Your task to perform on an android device: Open the map Image 0: 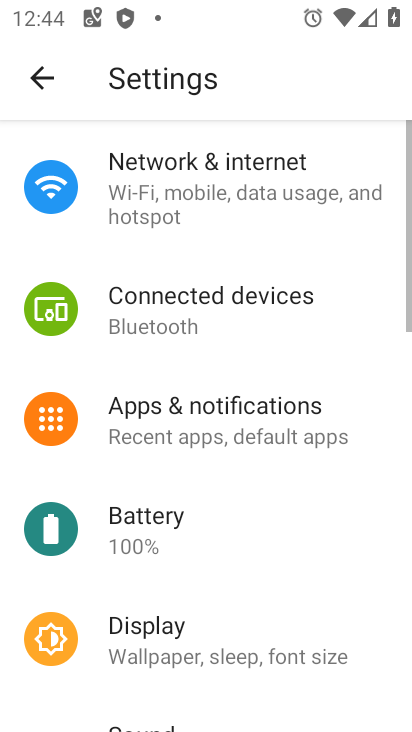
Step 0: press home button
Your task to perform on an android device: Open the map Image 1: 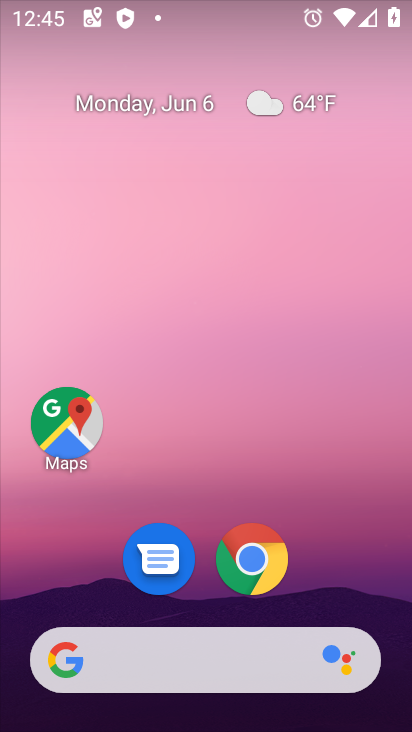
Step 1: drag from (210, 683) to (206, 150)
Your task to perform on an android device: Open the map Image 2: 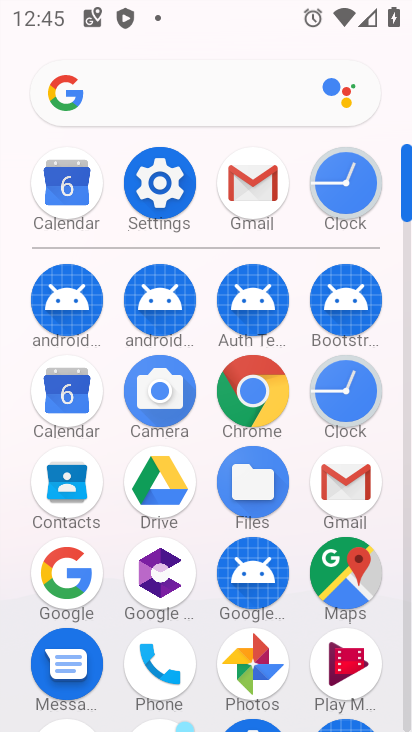
Step 2: click (355, 570)
Your task to perform on an android device: Open the map Image 3: 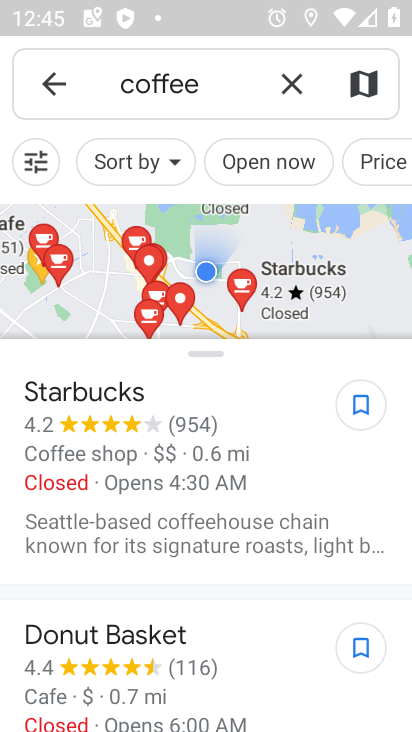
Step 3: click (193, 229)
Your task to perform on an android device: Open the map Image 4: 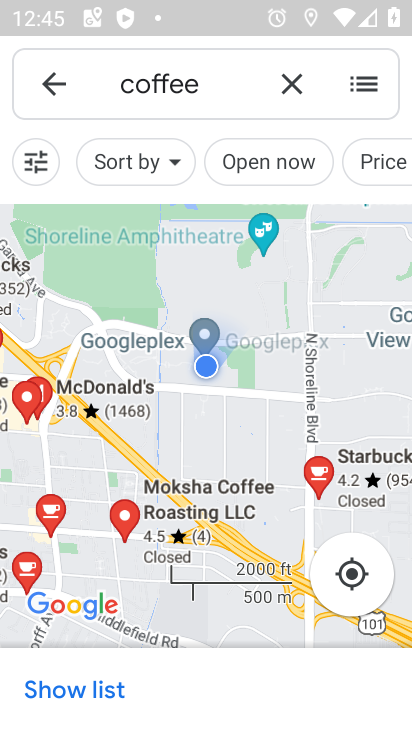
Step 4: task complete